Your task to perform on an android device: What's on my calendar today? Image 0: 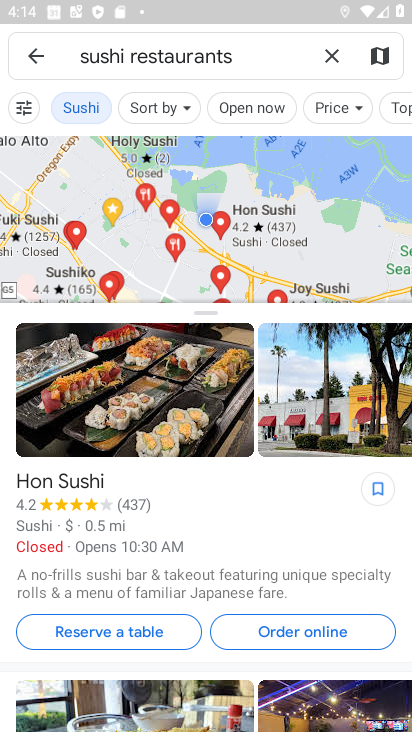
Step 0: click (213, 476)
Your task to perform on an android device: What's on my calendar today? Image 1: 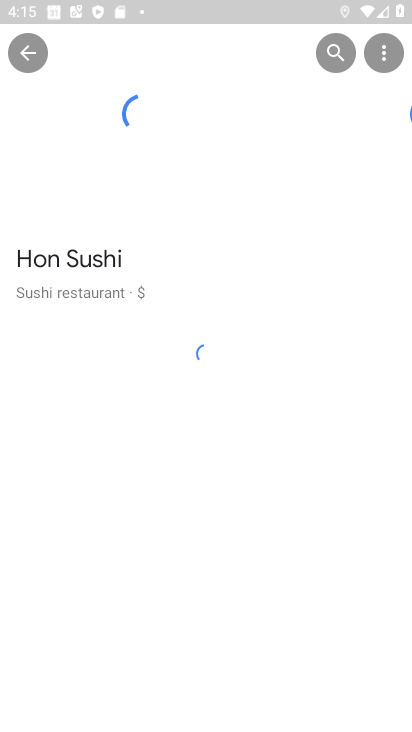
Step 1: press home button
Your task to perform on an android device: What's on my calendar today? Image 2: 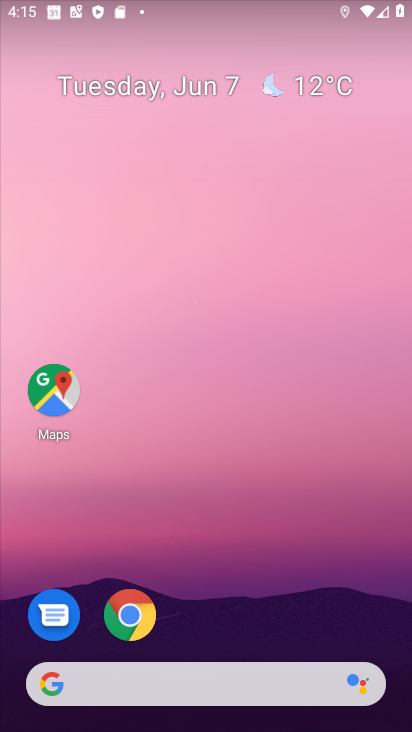
Step 2: drag from (286, 526) to (275, 48)
Your task to perform on an android device: What's on my calendar today? Image 3: 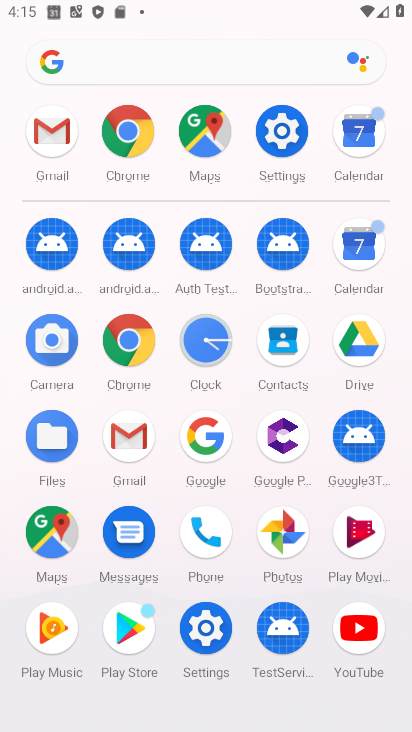
Step 3: click (354, 248)
Your task to perform on an android device: What's on my calendar today? Image 4: 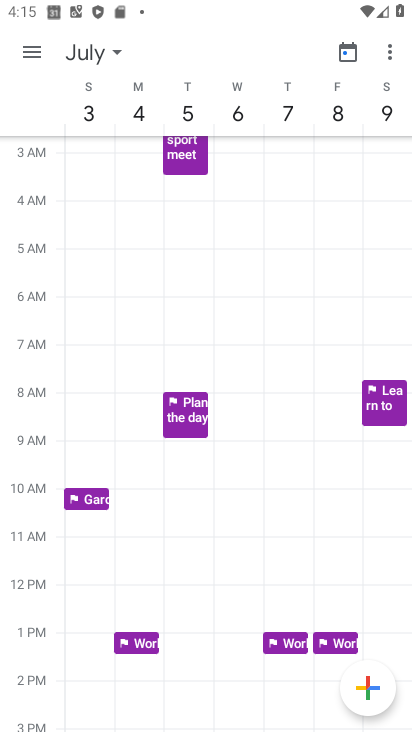
Step 4: click (71, 60)
Your task to perform on an android device: What's on my calendar today? Image 5: 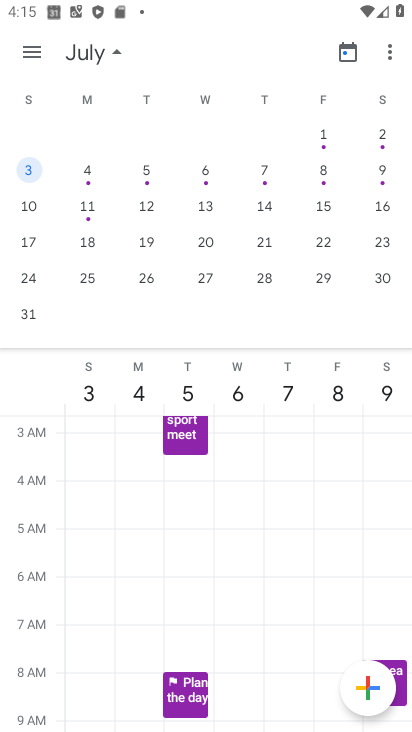
Step 5: drag from (111, 246) to (372, 255)
Your task to perform on an android device: What's on my calendar today? Image 6: 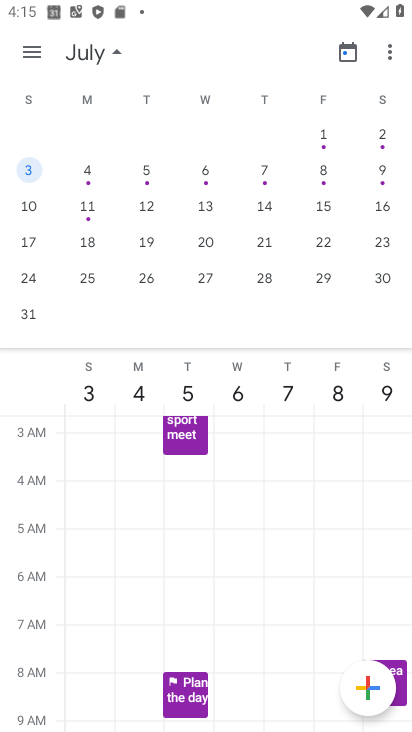
Step 6: drag from (96, 199) to (386, 242)
Your task to perform on an android device: What's on my calendar today? Image 7: 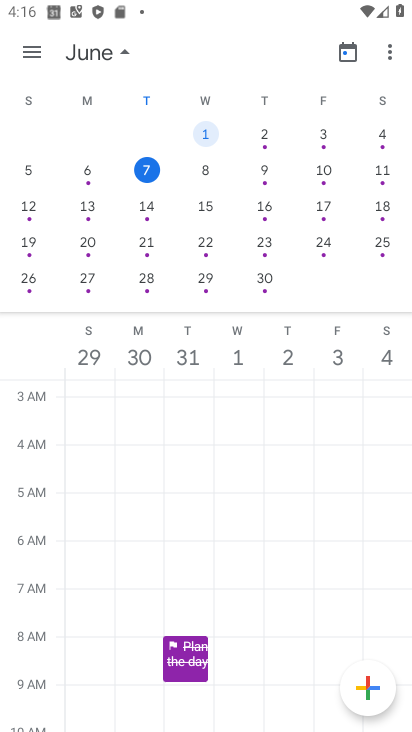
Step 7: click (24, 53)
Your task to perform on an android device: What's on my calendar today? Image 8: 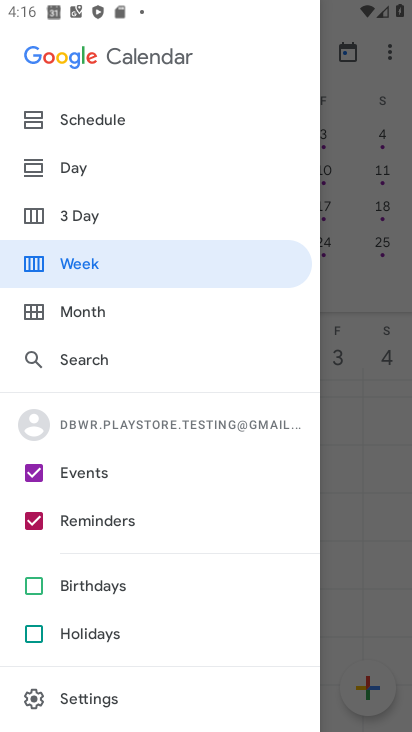
Step 8: click (62, 161)
Your task to perform on an android device: What's on my calendar today? Image 9: 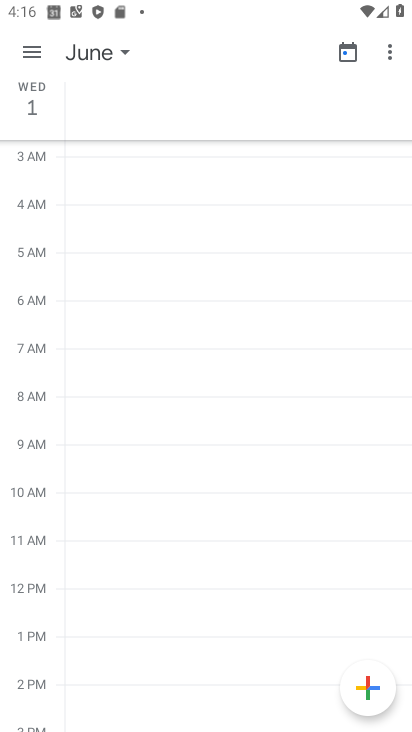
Step 9: task complete